Your task to perform on an android device: choose inbox layout in the gmail app Image 0: 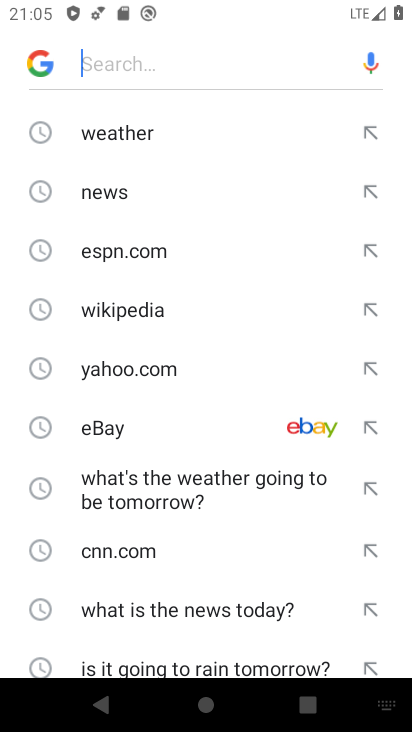
Step 0: press back button
Your task to perform on an android device: choose inbox layout in the gmail app Image 1: 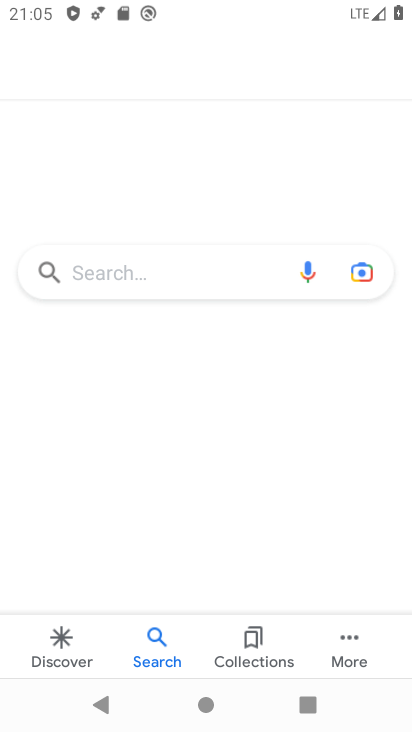
Step 1: press back button
Your task to perform on an android device: choose inbox layout in the gmail app Image 2: 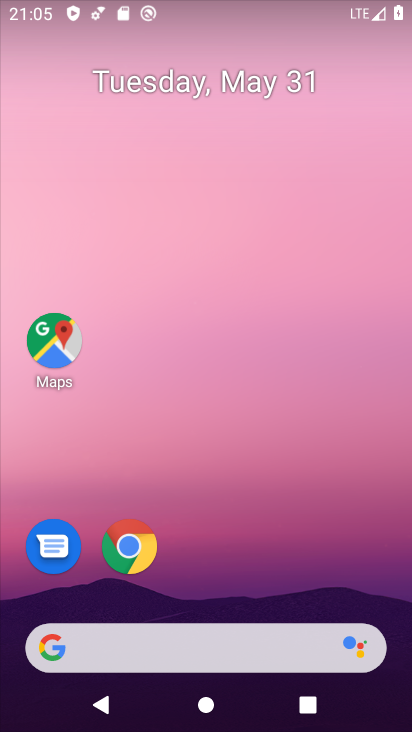
Step 2: drag from (386, 721) to (352, 200)
Your task to perform on an android device: choose inbox layout in the gmail app Image 3: 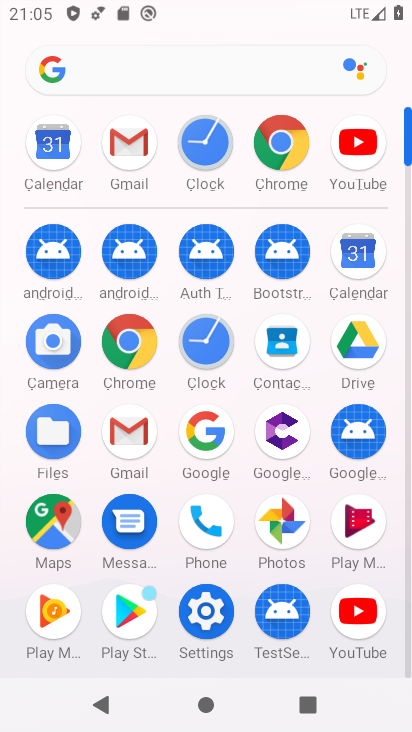
Step 3: click (122, 151)
Your task to perform on an android device: choose inbox layout in the gmail app Image 4: 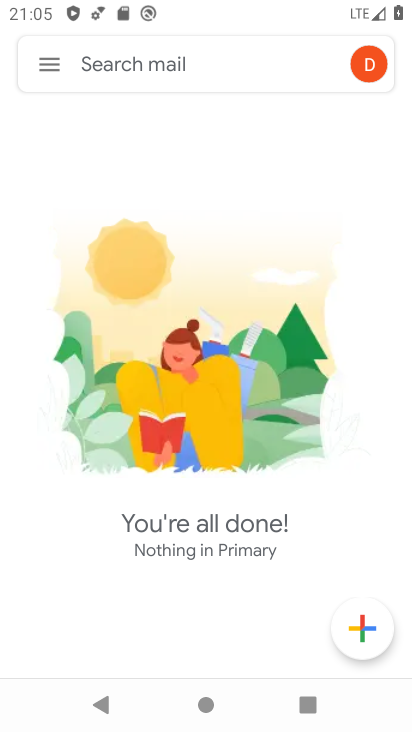
Step 4: click (40, 64)
Your task to perform on an android device: choose inbox layout in the gmail app Image 5: 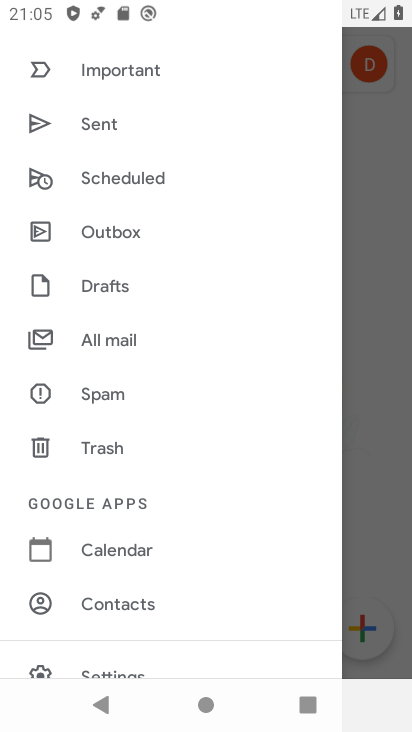
Step 5: click (115, 663)
Your task to perform on an android device: choose inbox layout in the gmail app Image 6: 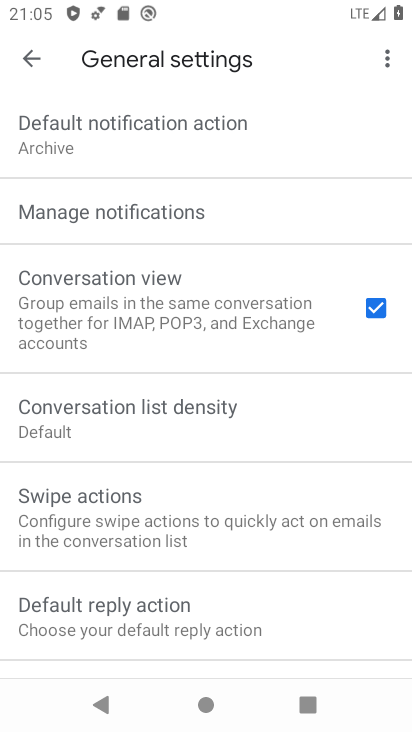
Step 6: click (27, 55)
Your task to perform on an android device: choose inbox layout in the gmail app Image 7: 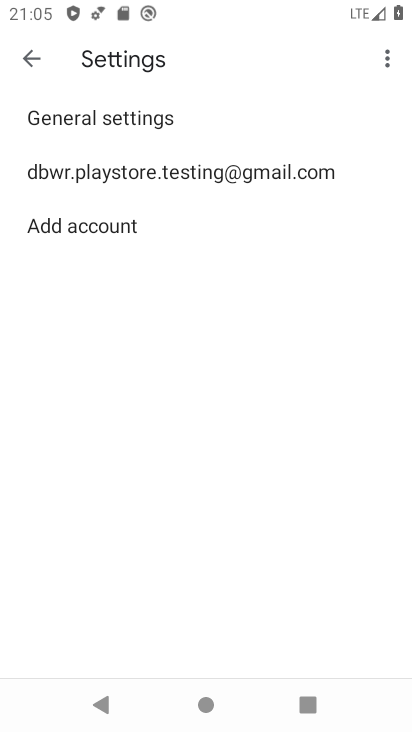
Step 7: click (73, 165)
Your task to perform on an android device: choose inbox layout in the gmail app Image 8: 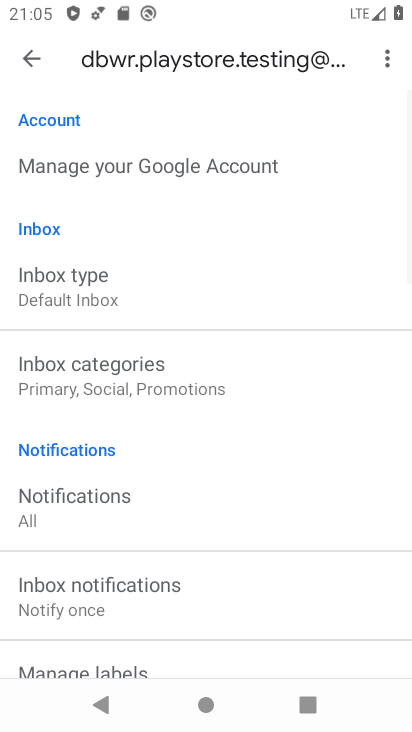
Step 8: click (49, 284)
Your task to perform on an android device: choose inbox layout in the gmail app Image 9: 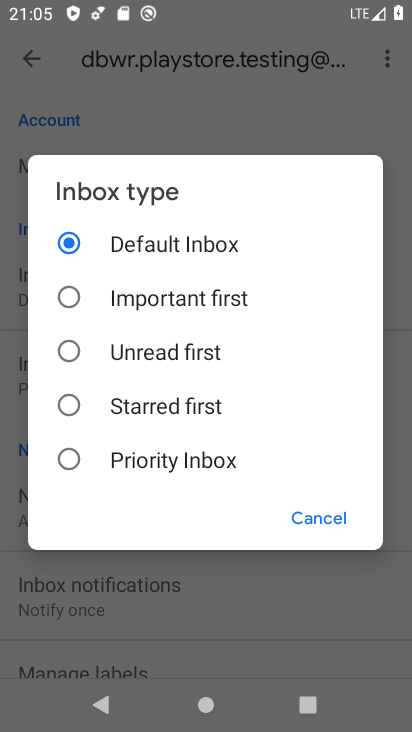
Step 9: click (67, 459)
Your task to perform on an android device: choose inbox layout in the gmail app Image 10: 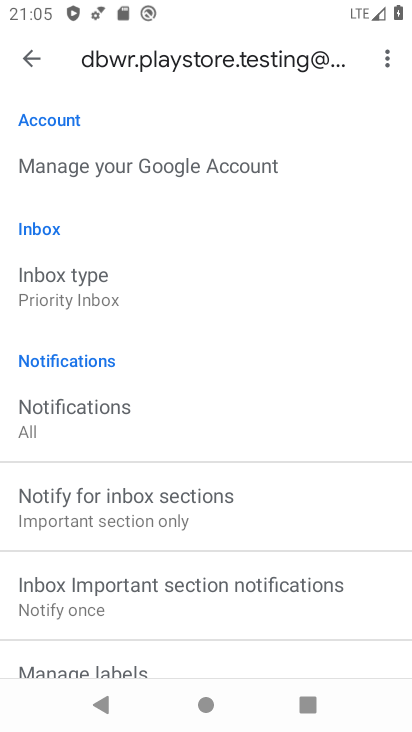
Step 10: task complete